Your task to perform on an android device: turn on javascript in the chrome app Image 0: 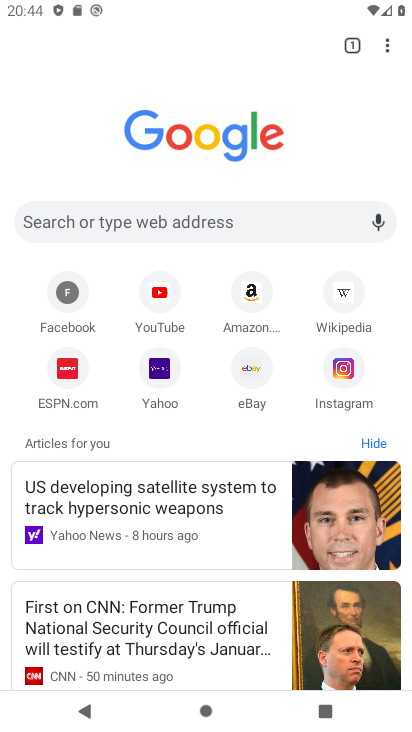
Step 0: click (383, 56)
Your task to perform on an android device: turn on javascript in the chrome app Image 1: 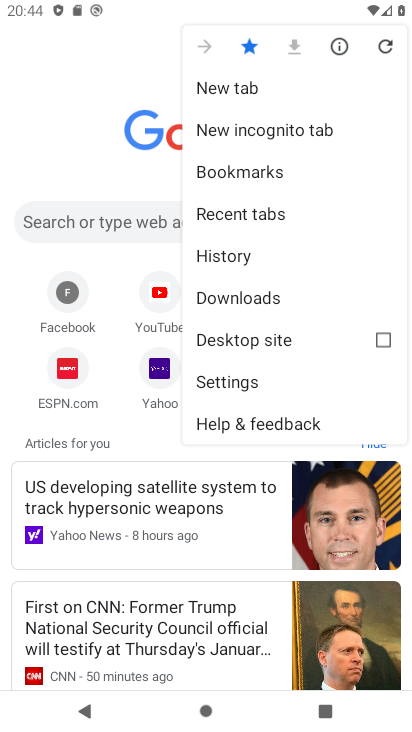
Step 1: click (234, 385)
Your task to perform on an android device: turn on javascript in the chrome app Image 2: 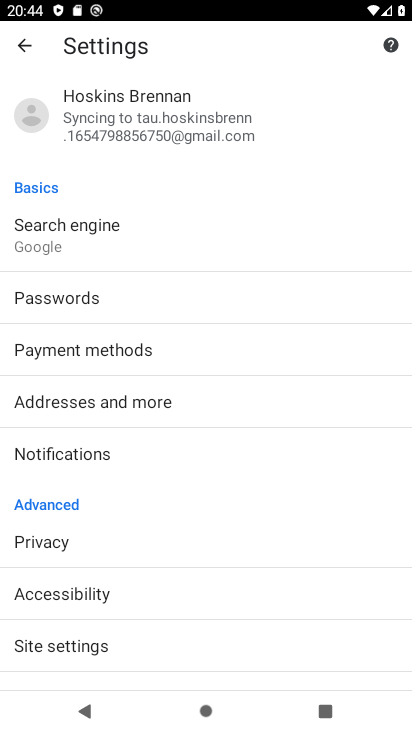
Step 2: drag from (190, 639) to (185, 200)
Your task to perform on an android device: turn on javascript in the chrome app Image 3: 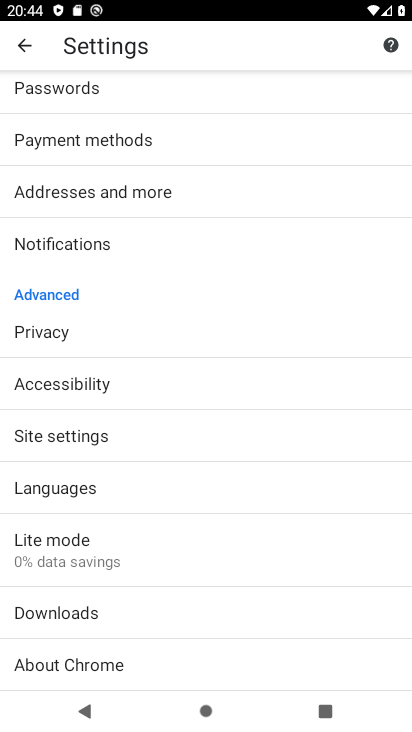
Step 3: click (52, 435)
Your task to perform on an android device: turn on javascript in the chrome app Image 4: 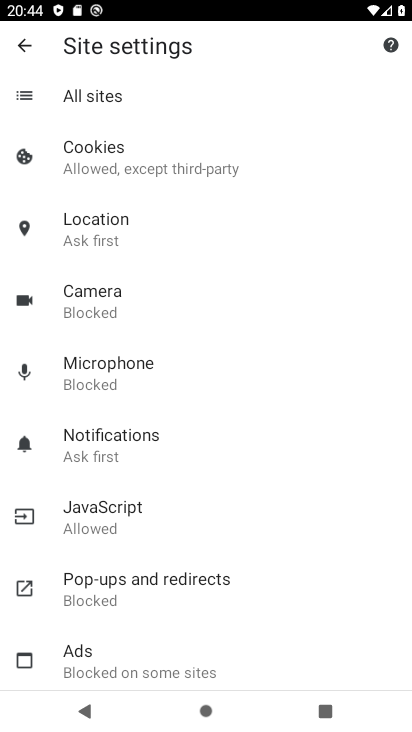
Step 4: click (92, 503)
Your task to perform on an android device: turn on javascript in the chrome app Image 5: 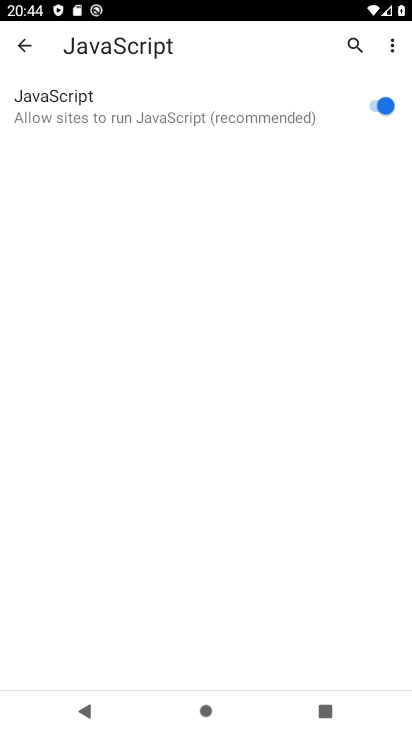
Step 5: task complete